Your task to perform on an android device: Play the last video I watched on Youtube Image 0: 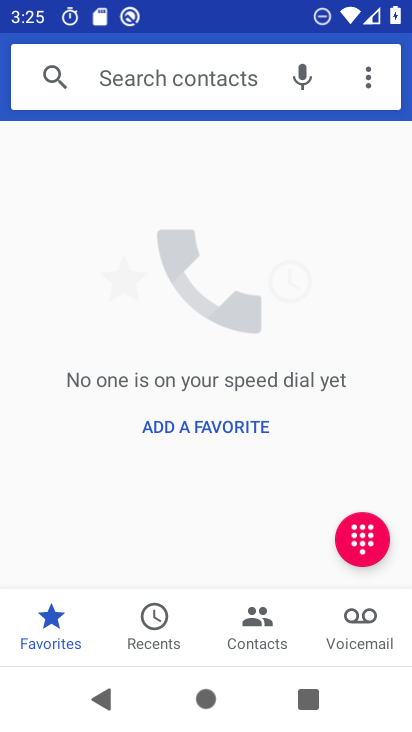
Step 0: press home button
Your task to perform on an android device: Play the last video I watched on Youtube Image 1: 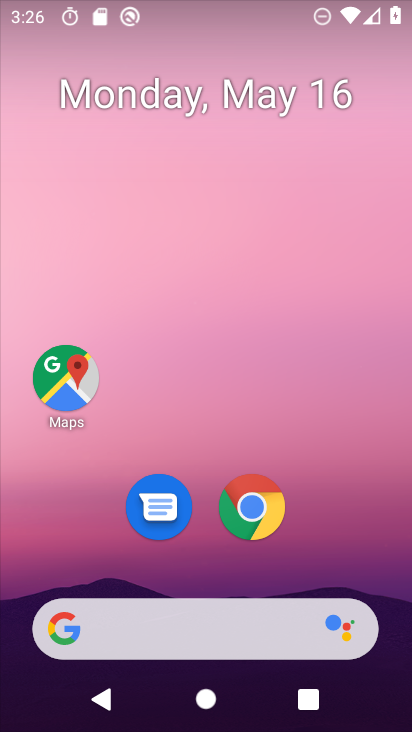
Step 1: drag from (330, 532) to (273, 56)
Your task to perform on an android device: Play the last video I watched on Youtube Image 2: 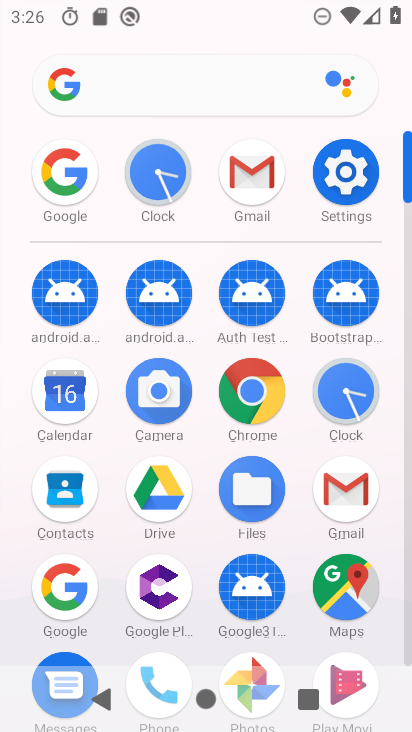
Step 2: drag from (387, 525) to (346, 134)
Your task to perform on an android device: Play the last video I watched on Youtube Image 3: 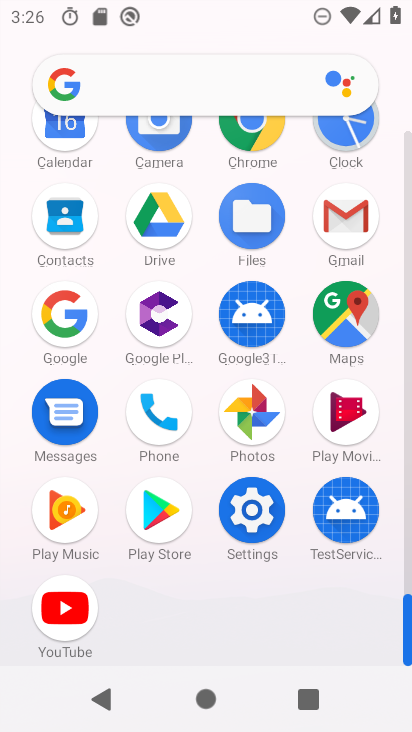
Step 3: click (50, 632)
Your task to perform on an android device: Play the last video I watched on Youtube Image 4: 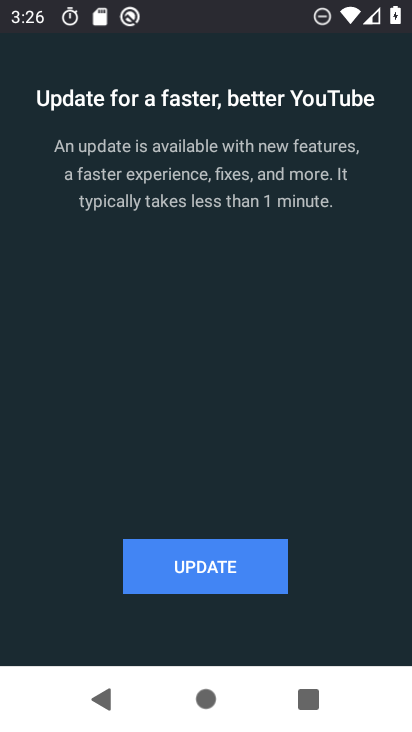
Step 4: click (221, 579)
Your task to perform on an android device: Play the last video I watched on Youtube Image 5: 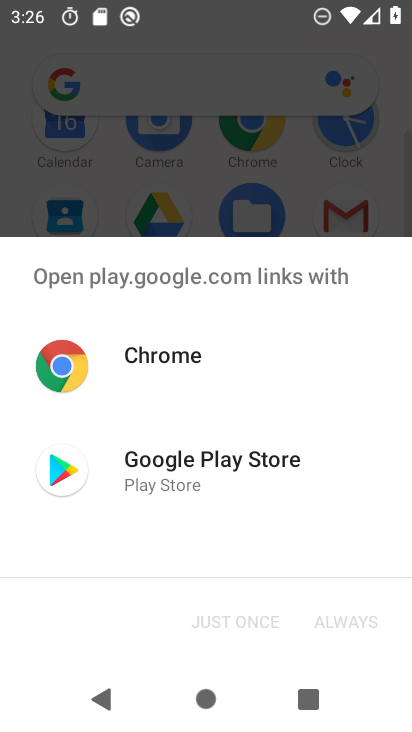
Step 5: click (140, 483)
Your task to perform on an android device: Play the last video I watched on Youtube Image 6: 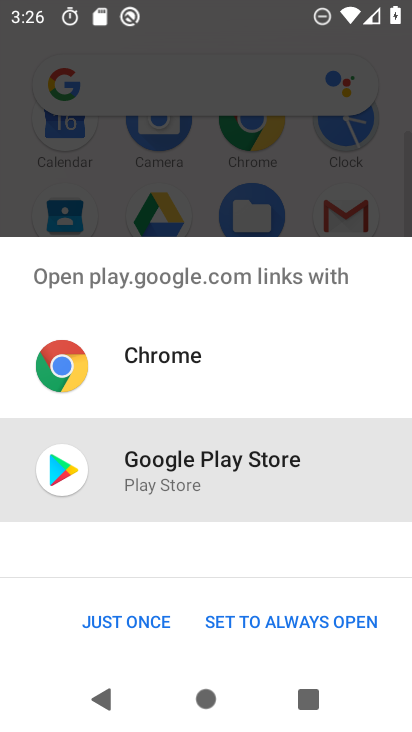
Step 6: click (109, 610)
Your task to perform on an android device: Play the last video I watched on Youtube Image 7: 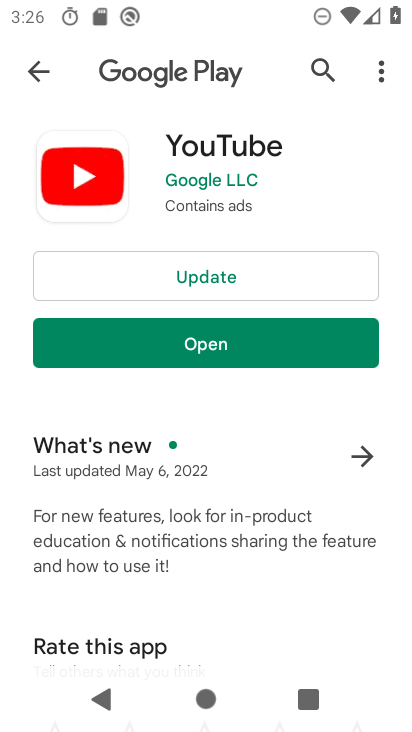
Step 7: click (212, 284)
Your task to perform on an android device: Play the last video I watched on Youtube Image 8: 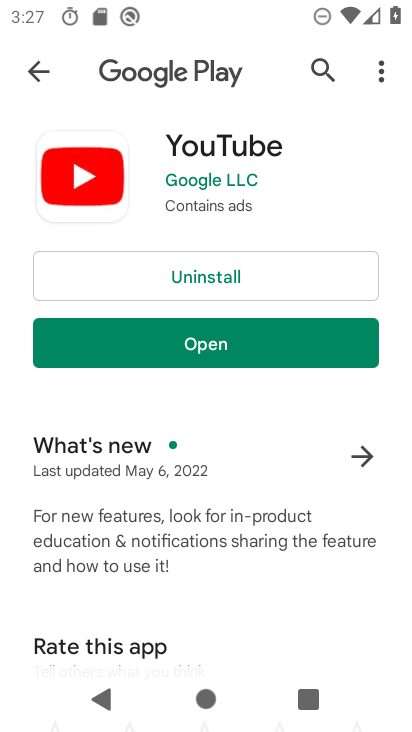
Step 8: click (266, 341)
Your task to perform on an android device: Play the last video I watched on Youtube Image 9: 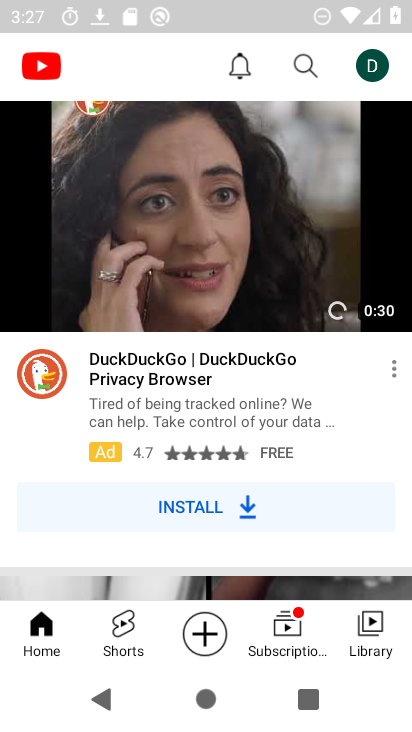
Step 9: click (363, 631)
Your task to perform on an android device: Play the last video I watched on Youtube Image 10: 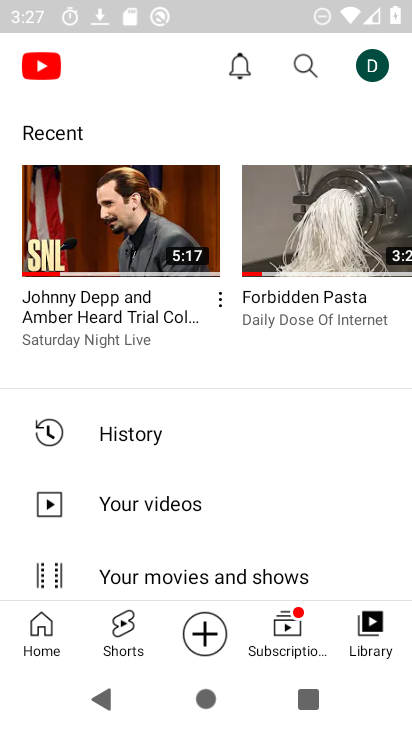
Step 10: click (115, 262)
Your task to perform on an android device: Play the last video I watched on Youtube Image 11: 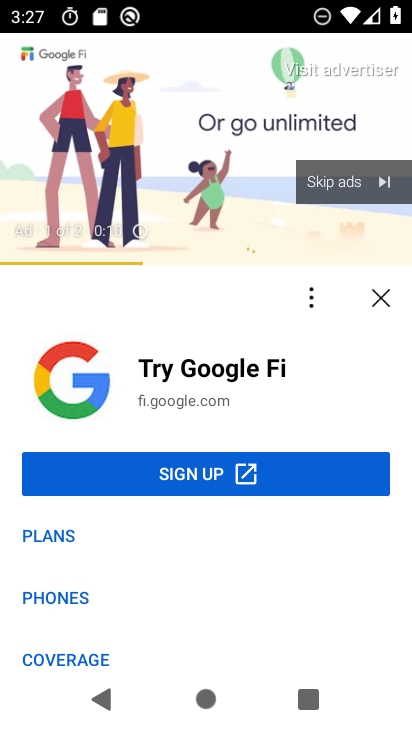
Step 11: task complete